Your task to perform on an android device: check battery use Image 0: 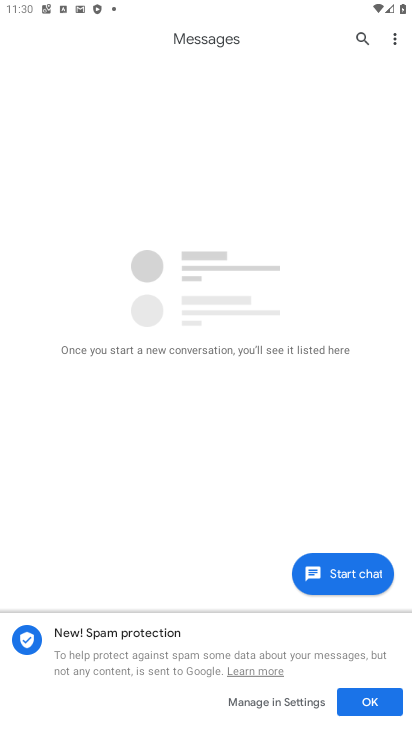
Step 0: press back button
Your task to perform on an android device: check battery use Image 1: 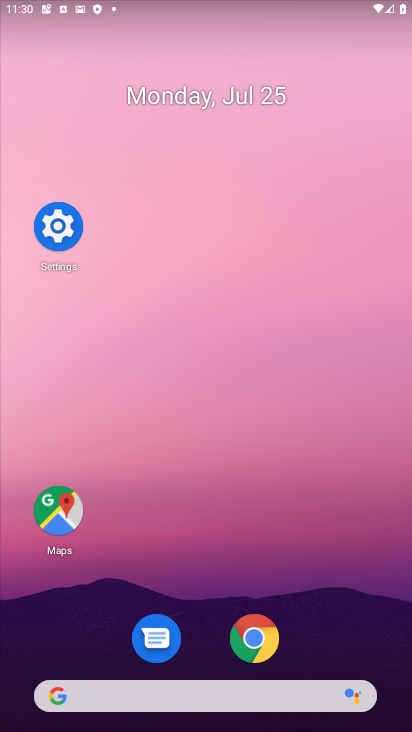
Step 1: click (41, 209)
Your task to perform on an android device: check battery use Image 2: 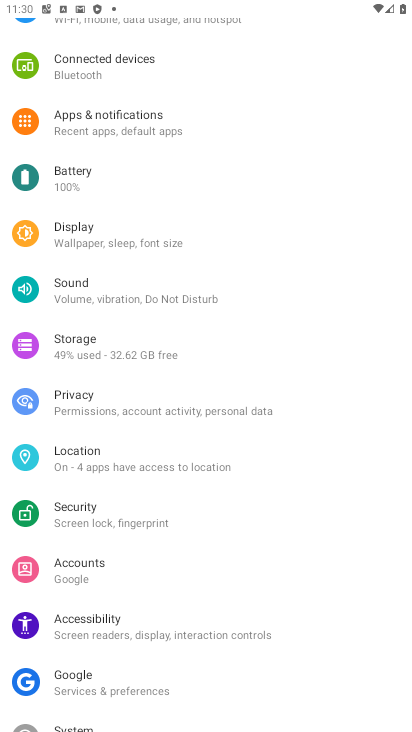
Step 2: click (79, 164)
Your task to perform on an android device: check battery use Image 3: 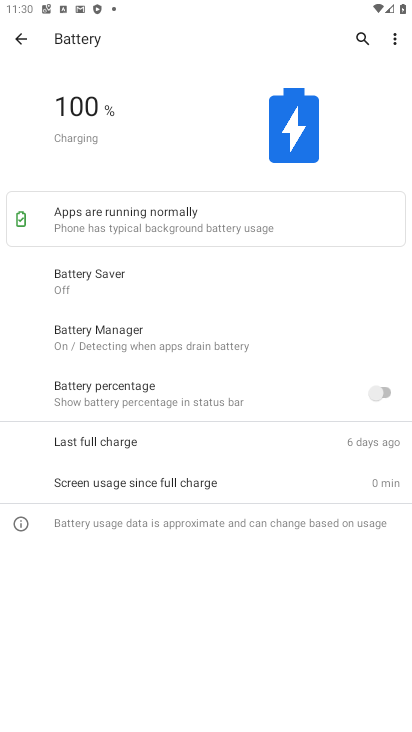
Step 3: click (400, 37)
Your task to perform on an android device: check battery use Image 4: 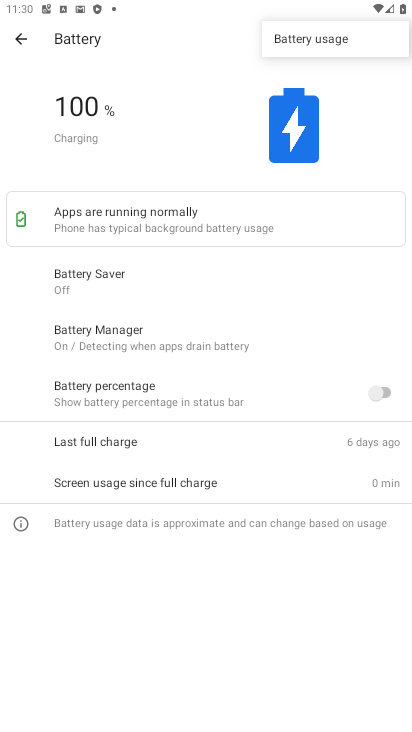
Step 4: click (294, 46)
Your task to perform on an android device: check battery use Image 5: 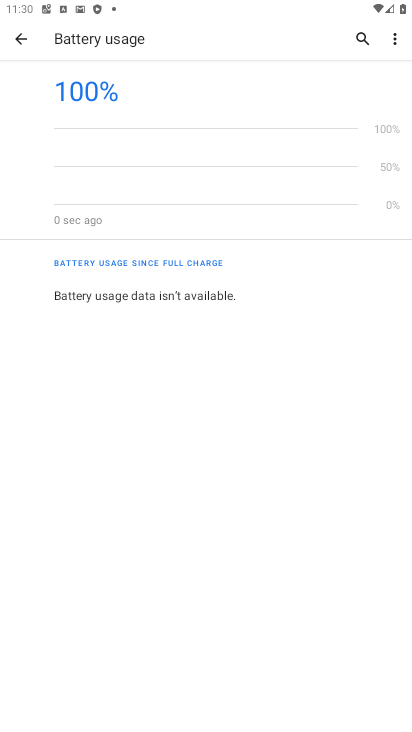
Step 5: task complete